Your task to perform on an android device: turn on wifi Image 0: 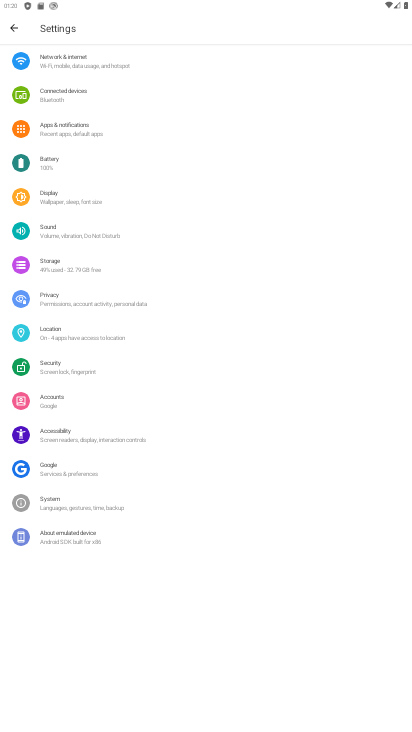
Step 0: click (71, 72)
Your task to perform on an android device: turn on wifi Image 1: 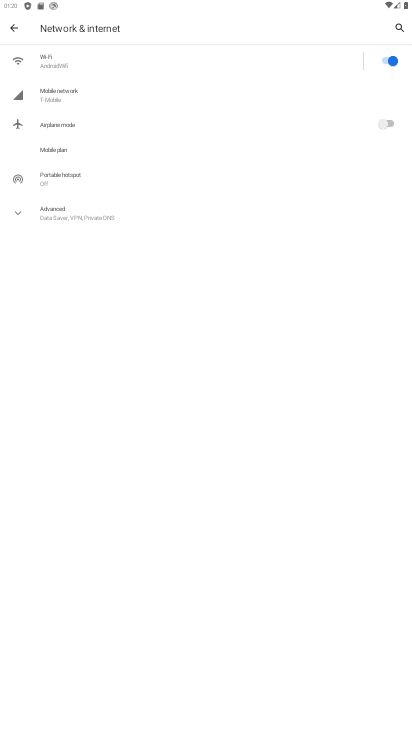
Step 1: click (79, 64)
Your task to perform on an android device: turn on wifi Image 2: 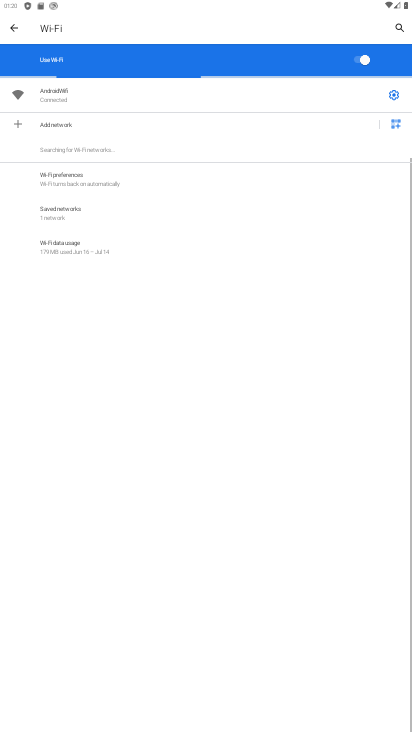
Step 2: task complete